Your task to perform on an android device: see tabs open on other devices in the chrome app Image 0: 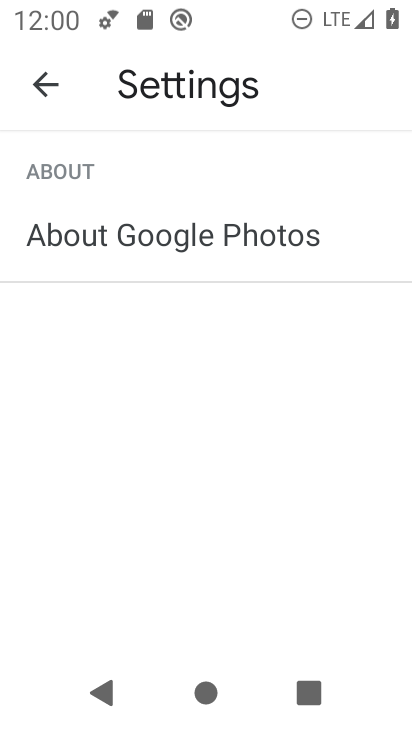
Step 0: press home button
Your task to perform on an android device: see tabs open on other devices in the chrome app Image 1: 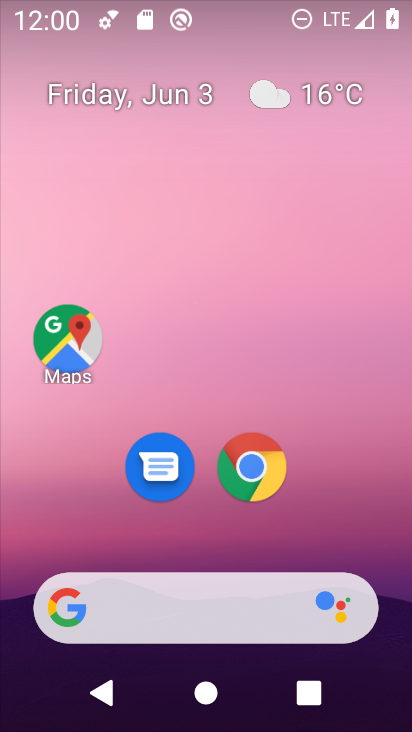
Step 1: click (254, 469)
Your task to perform on an android device: see tabs open on other devices in the chrome app Image 2: 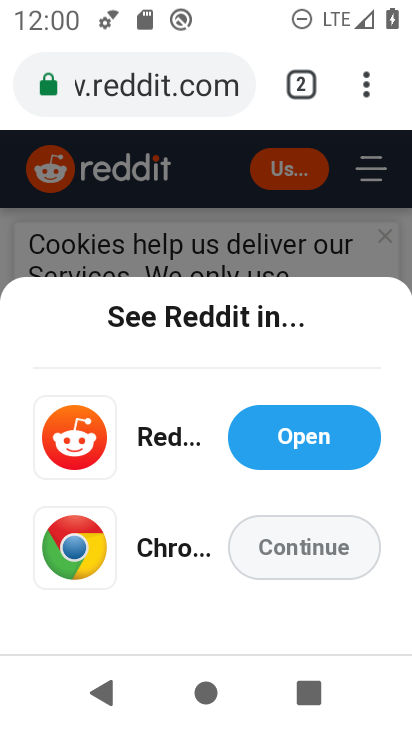
Step 2: click (363, 89)
Your task to perform on an android device: see tabs open on other devices in the chrome app Image 3: 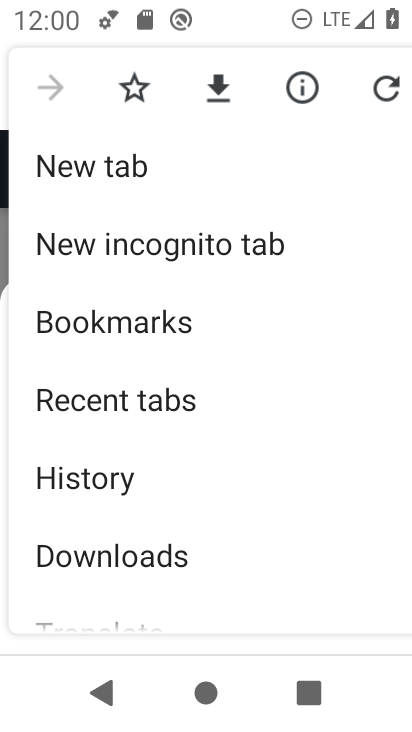
Step 3: click (102, 399)
Your task to perform on an android device: see tabs open on other devices in the chrome app Image 4: 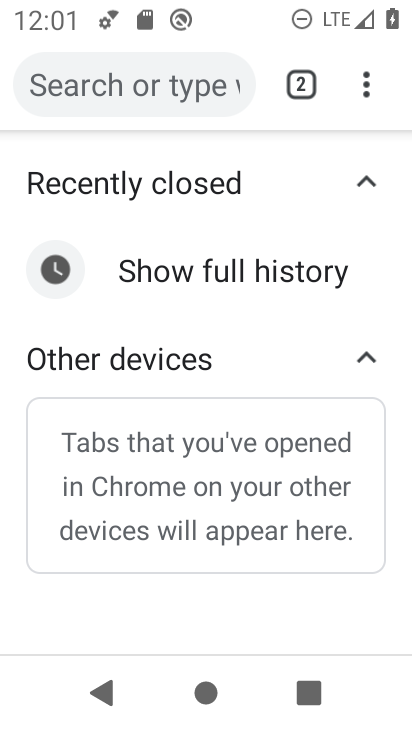
Step 4: task complete